Your task to perform on an android device: Set the phone to "Do not disturb". Image 0: 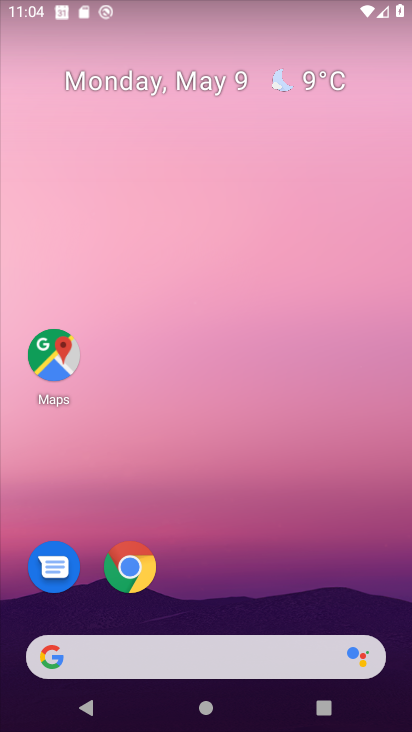
Step 0: drag from (198, 6) to (201, 534)
Your task to perform on an android device: Set the phone to "Do not disturb". Image 1: 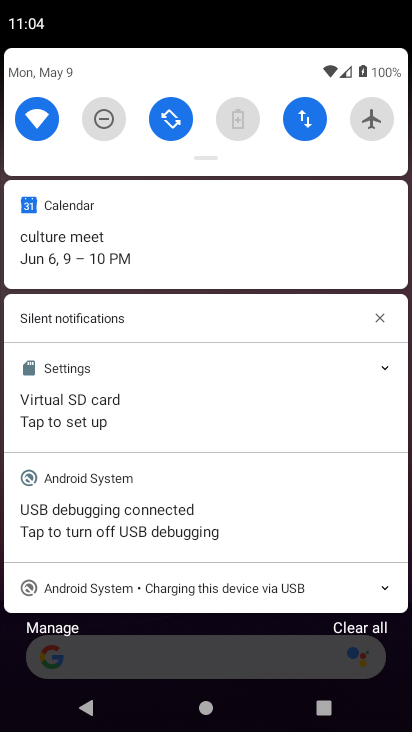
Step 1: click (108, 115)
Your task to perform on an android device: Set the phone to "Do not disturb". Image 2: 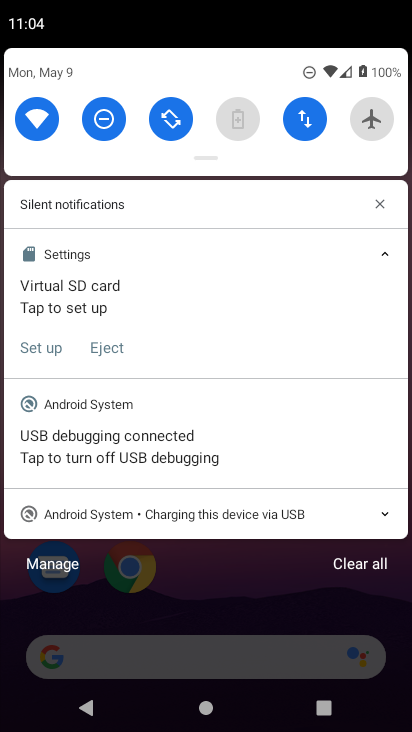
Step 2: click (367, 563)
Your task to perform on an android device: Set the phone to "Do not disturb". Image 3: 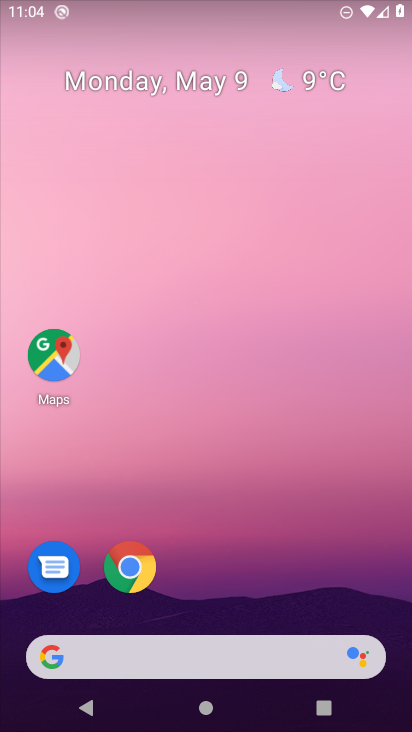
Step 3: task complete